Your task to perform on an android device: turn notification dots on Image 0: 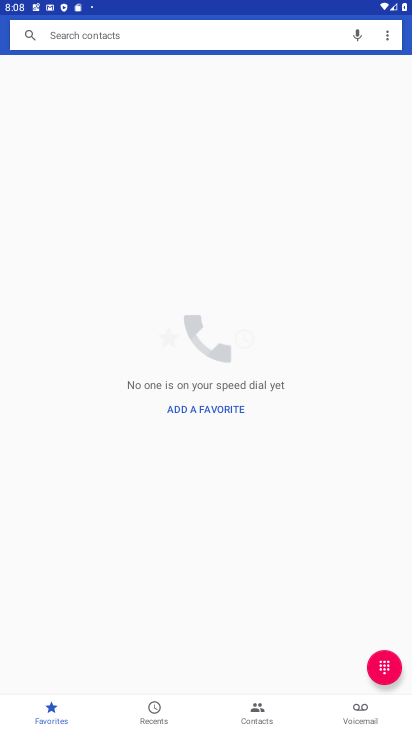
Step 0: press home button
Your task to perform on an android device: turn notification dots on Image 1: 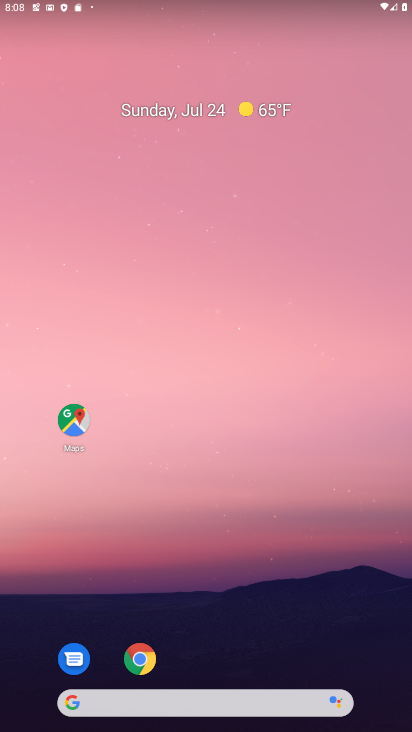
Step 1: drag from (227, 662) to (231, 42)
Your task to perform on an android device: turn notification dots on Image 2: 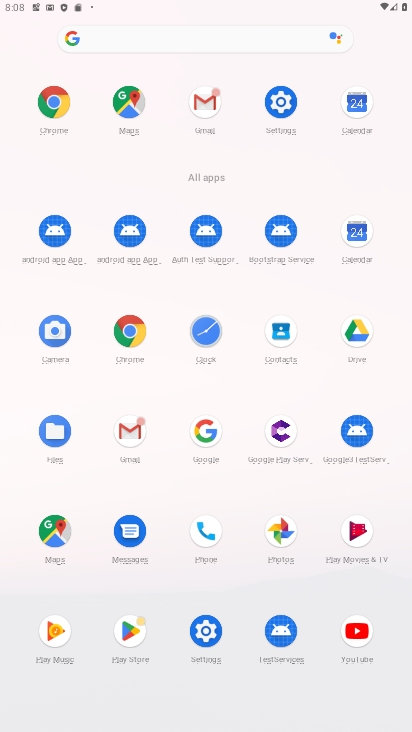
Step 2: click (283, 112)
Your task to perform on an android device: turn notification dots on Image 3: 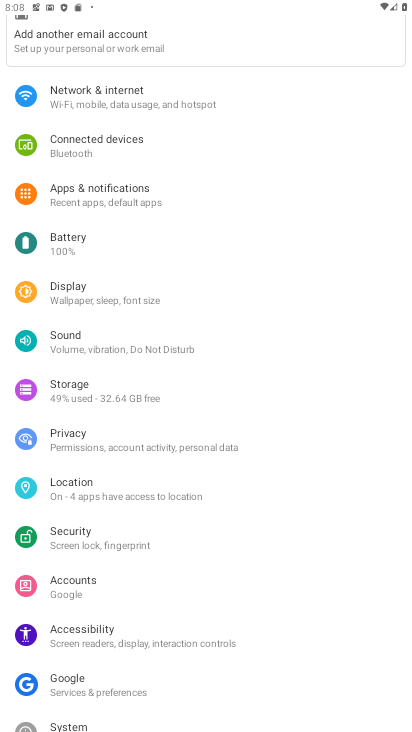
Step 3: click (101, 199)
Your task to perform on an android device: turn notification dots on Image 4: 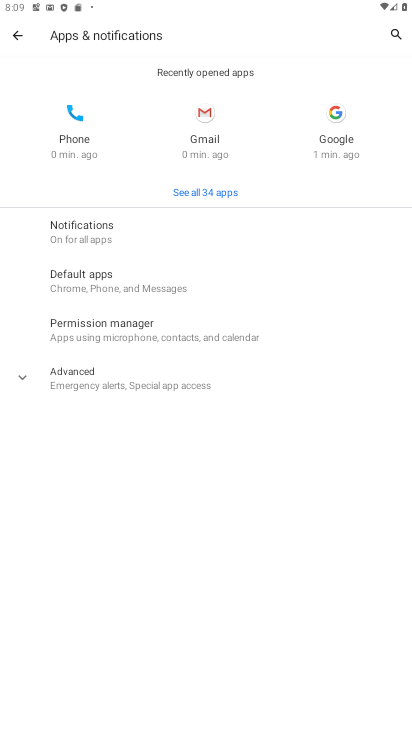
Step 4: click (86, 236)
Your task to perform on an android device: turn notification dots on Image 5: 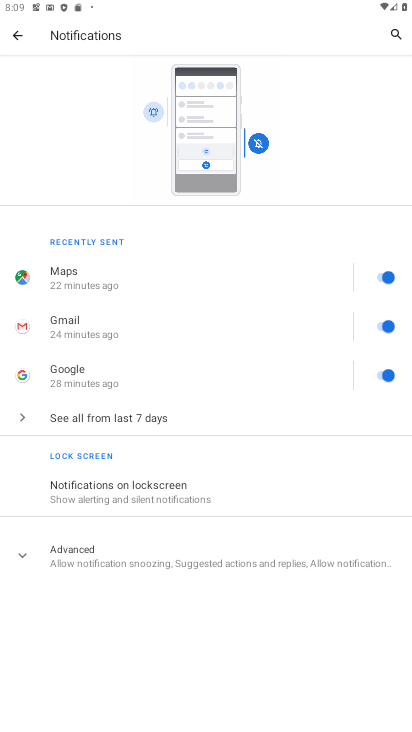
Step 5: click (18, 560)
Your task to perform on an android device: turn notification dots on Image 6: 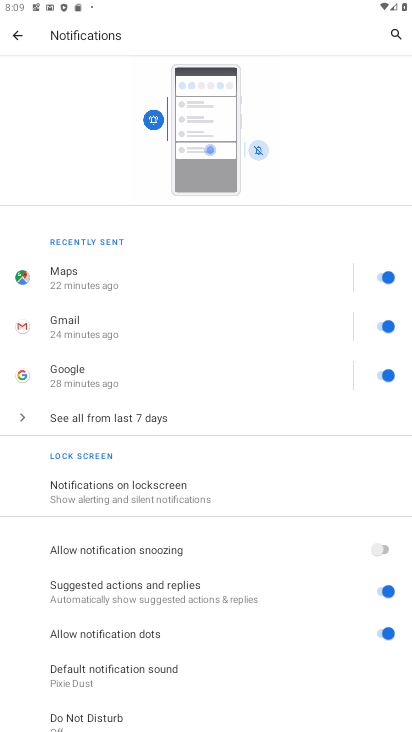
Step 6: task complete